Your task to perform on an android device: Open sound settings Image 0: 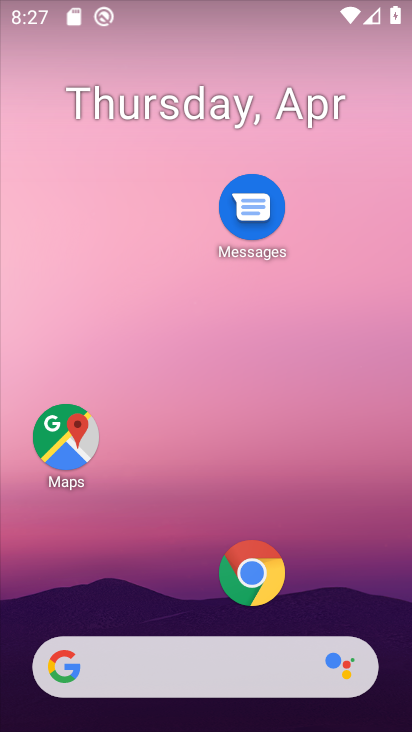
Step 0: drag from (190, 541) to (206, 46)
Your task to perform on an android device: Open sound settings Image 1: 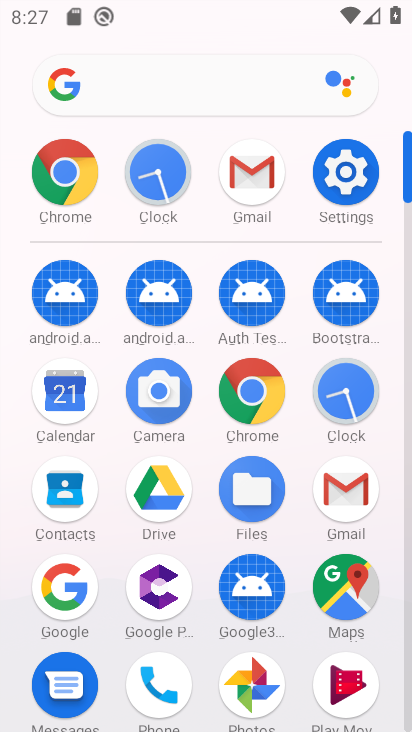
Step 1: click (344, 167)
Your task to perform on an android device: Open sound settings Image 2: 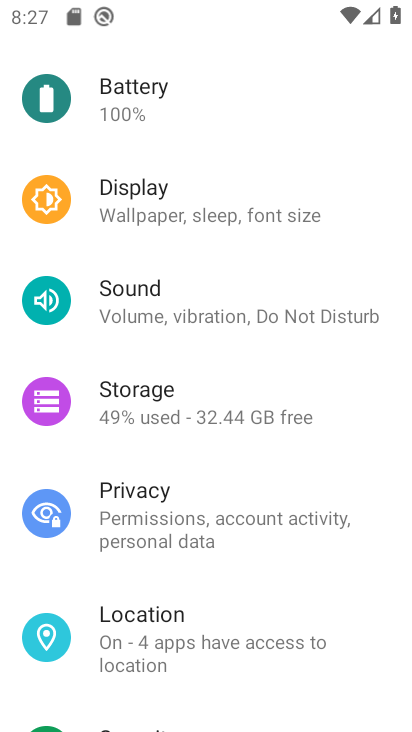
Step 2: click (168, 285)
Your task to perform on an android device: Open sound settings Image 3: 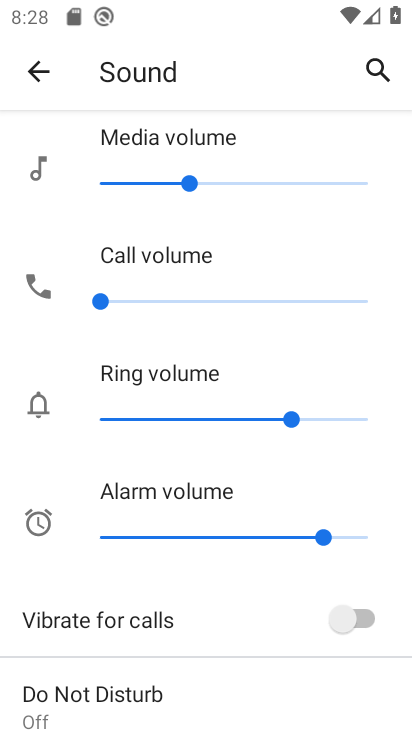
Step 3: drag from (226, 663) to (290, 44)
Your task to perform on an android device: Open sound settings Image 4: 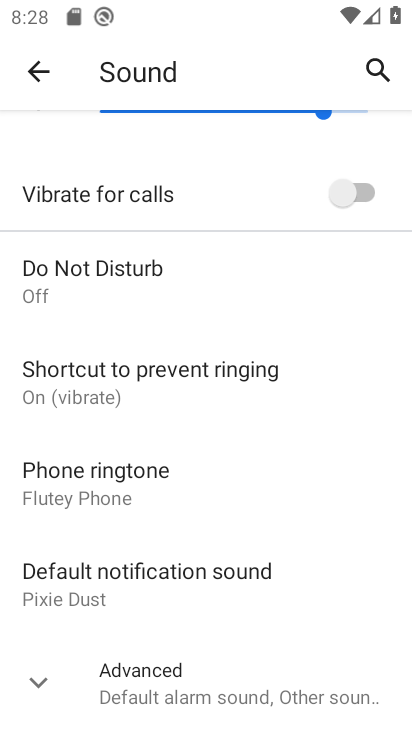
Step 4: click (36, 669)
Your task to perform on an android device: Open sound settings Image 5: 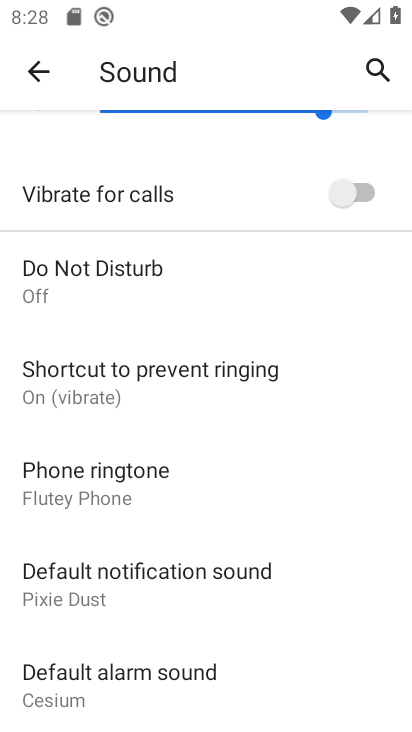
Step 5: task complete